Your task to perform on an android device: What's the weather going to be tomorrow? Image 0: 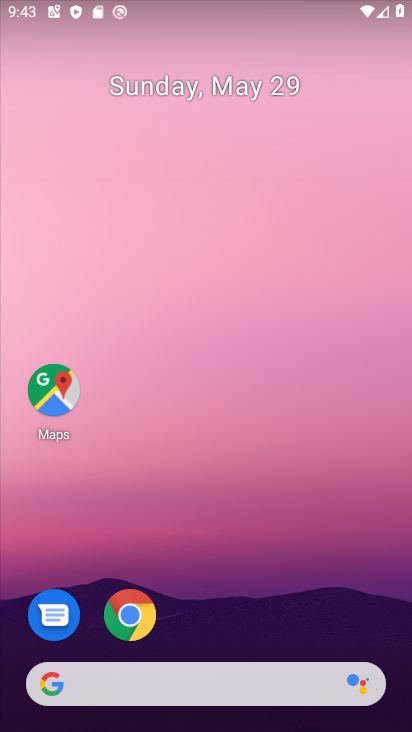
Step 0: drag from (188, 637) to (169, 126)
Your task to perform on an android device: What's the weather going to be tomorrow? Image 1: 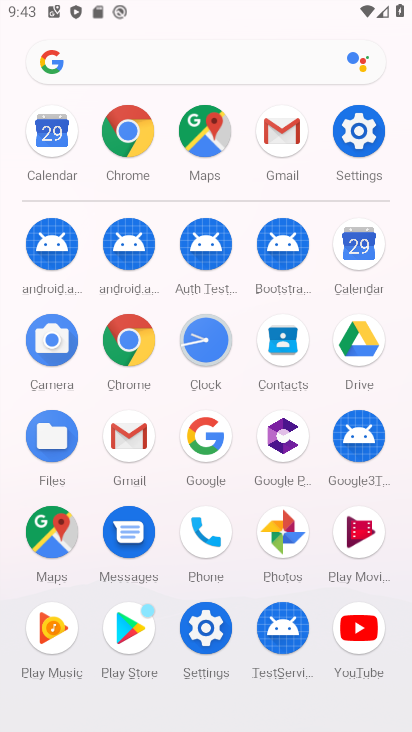
Step 1: click (189, 438)
Your task to perform on an android device: What's the weather going to be tomorrow? Image 2: 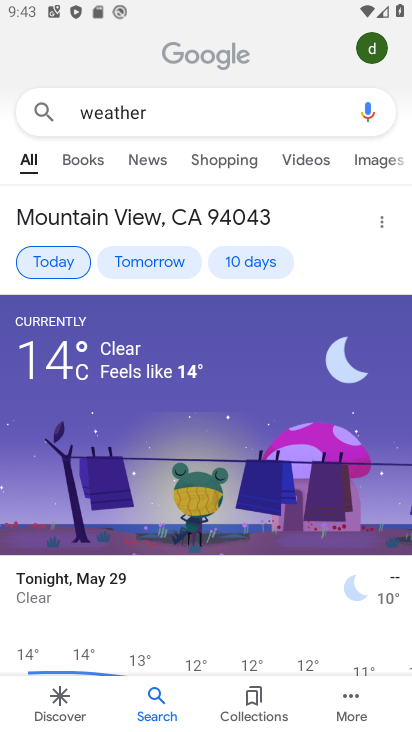
Step 2: click (171, 265)
Your task to perform on an android device: What's the weather going to be tomorrow? Image 3: 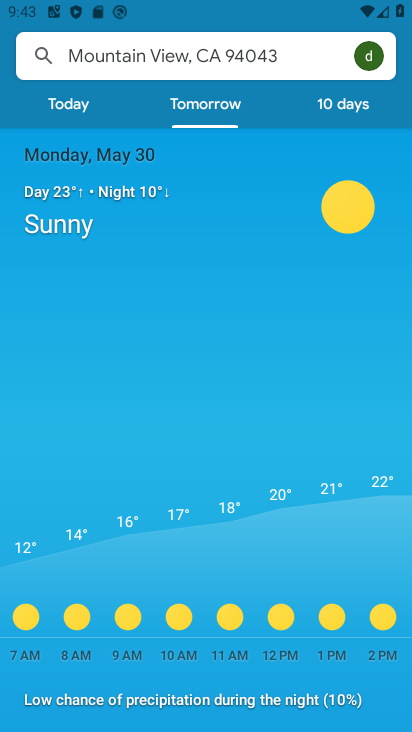
Step 3: task complete